Your task to perform on an android device: Show me the alarms in the clock app Image 0: 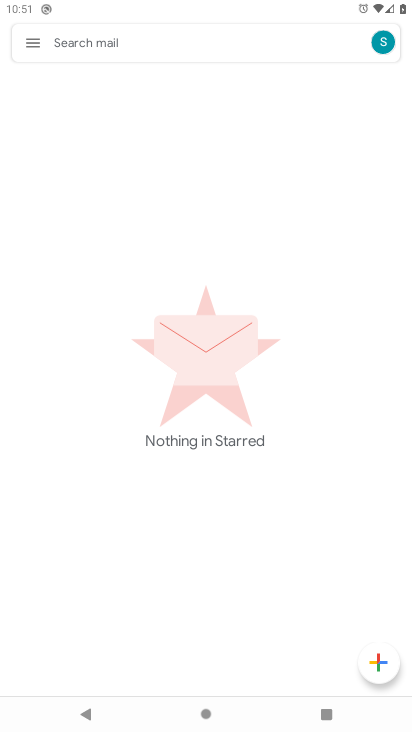
Step 0: press home button
Your task to perform on an android device: Show me the alarms in the clock app Image 1: 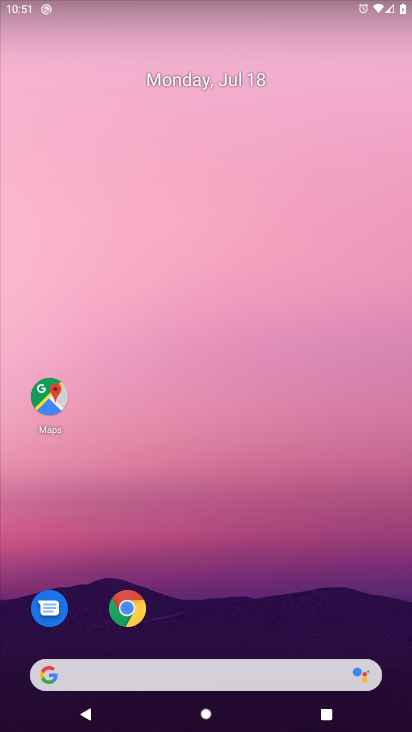
Step 1: drag from (33, 669) to (205, 226)
Your task to perform on an android device: Show me the alarms in the clock app Image 2: 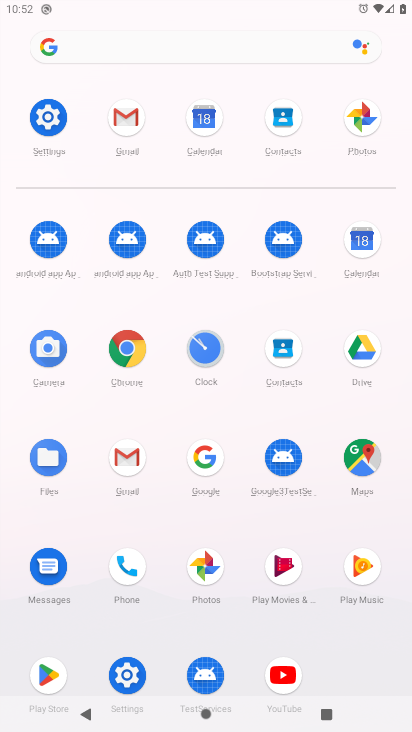
Step 2: click (218, 363)
Your task to perform on an android device: Show me the alarms in the clock app Image 3: 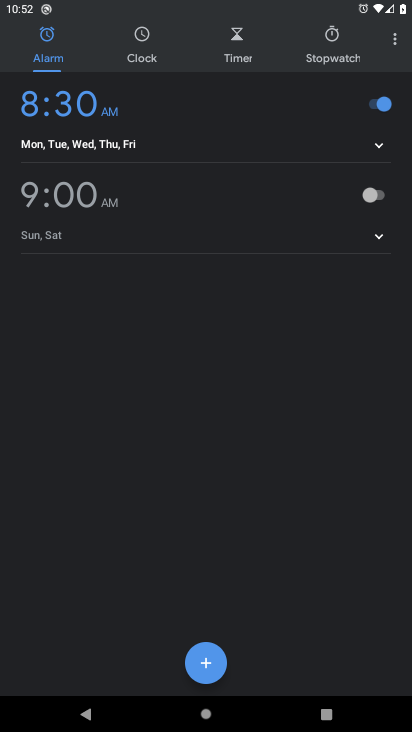
Step 3: task complete